Your task to perform on an android device: Open Amazon Image 0: 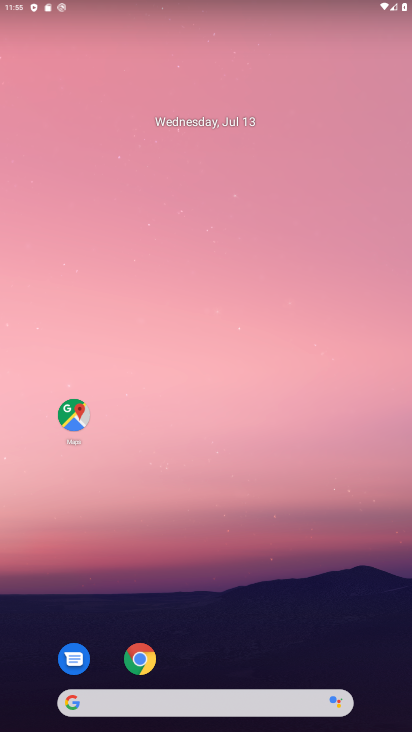
Step 0: click (147, 660)
Your task to perform on an android device: Open Amazon Image 1: 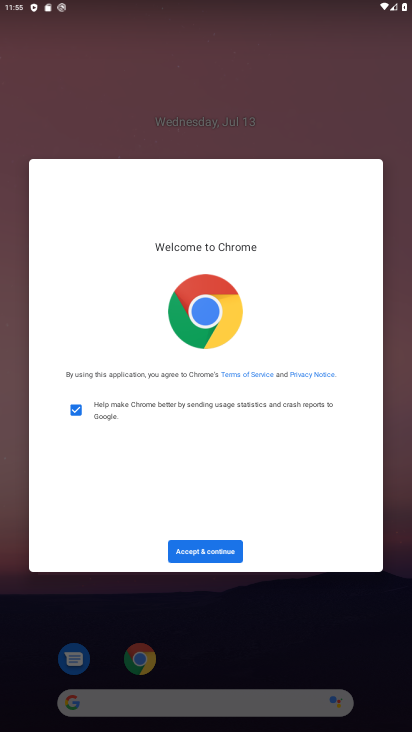
Step 1: click (221, 555)
Your task to perform on an android device: Open Amazon Image 2: 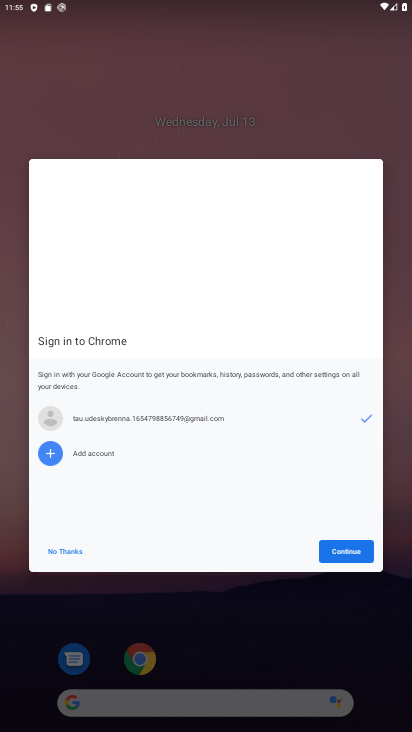
Step 2: click (356, 553)
Your task to perform on an android device: Open Amazon Image 3: 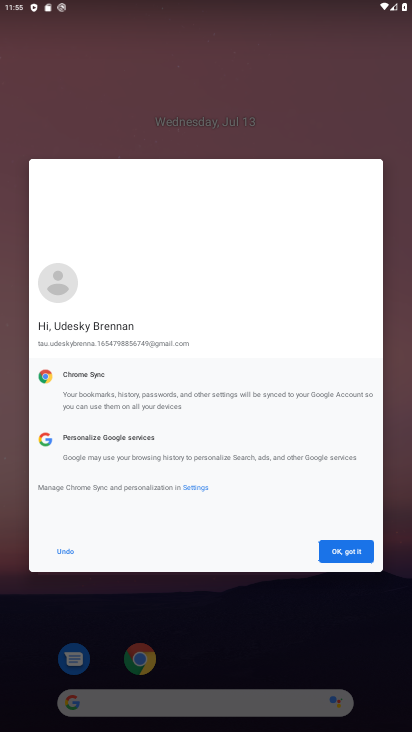
Step 3: click (362, 551)
Your task to perform on an android device: Open Amazon Image 4: 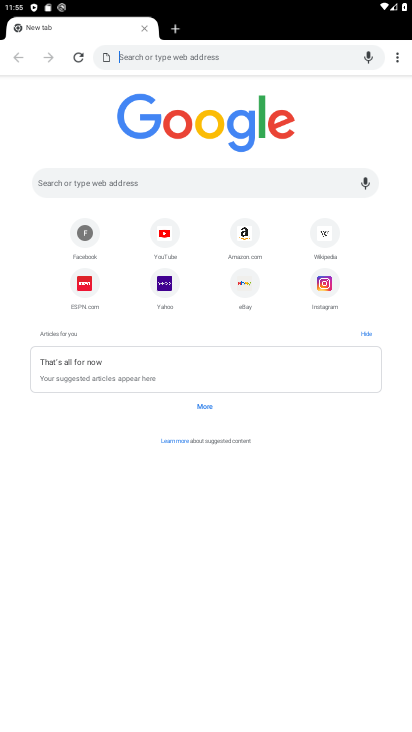
Step 4: click (243, 233)
Your task to perform on an android device: Open Amazon Image 5: 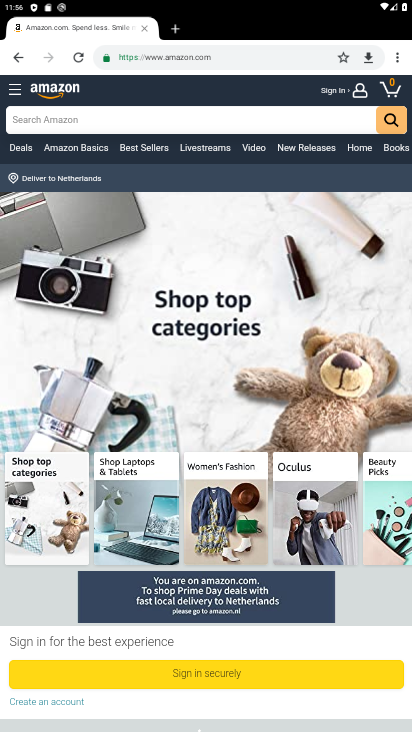
Step 5: task complete